Your task to perform on an android device: turn on airplane mode Image 0: 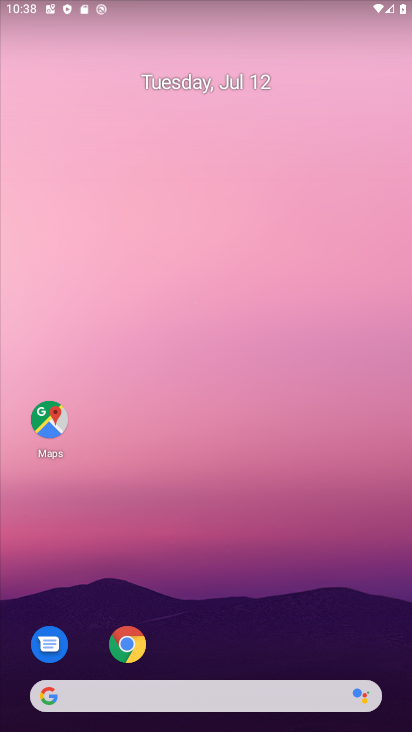
Step 0: drag from (322, 700) to (331, 37)
Your task to perform on an android device: turn on airplane mode Image 1: 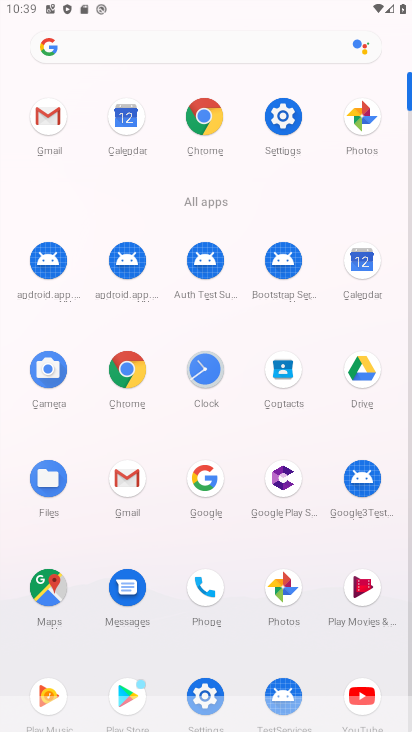
Step 1: click (289, 122)
Your task to perform on an android device: turn on airplane mode Image 2: 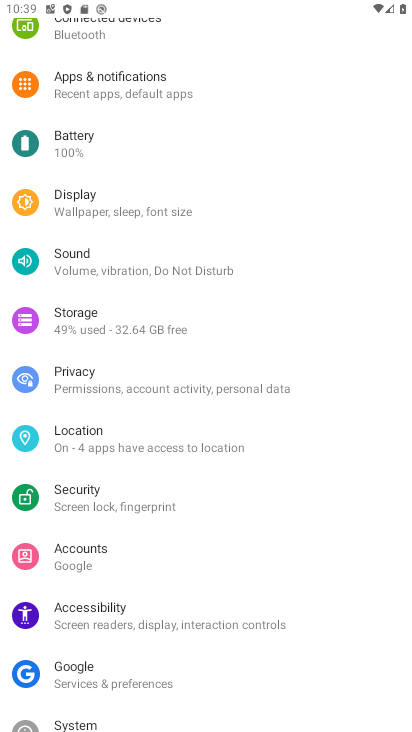
Step 2: drag from (329, 169) to (251, 598)
Your task to perform on an android device: turn on airplane mode Image 3: 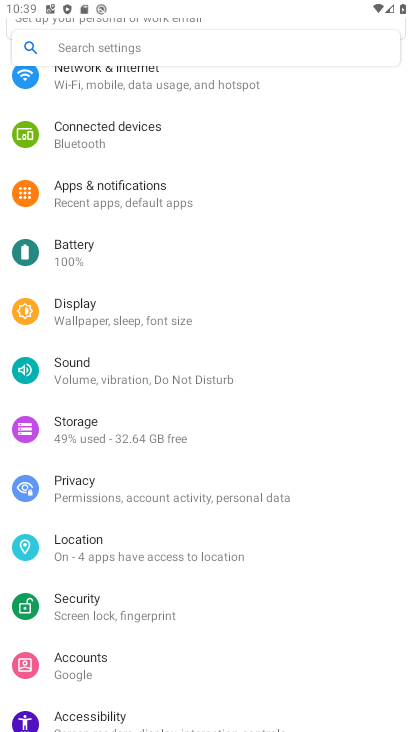
Step 3: click (219, 89)
Your task to perform on an android device: turn on airplane mode Image 4: 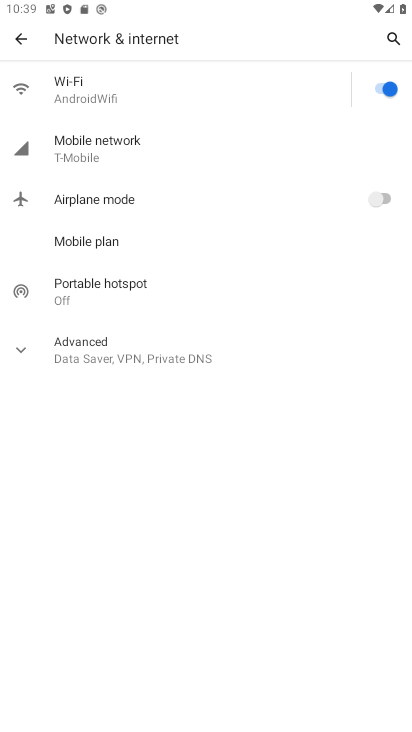
Step 4: click (388, 195)
Your task to perform on an android device: turn on airplane mode Image 5: 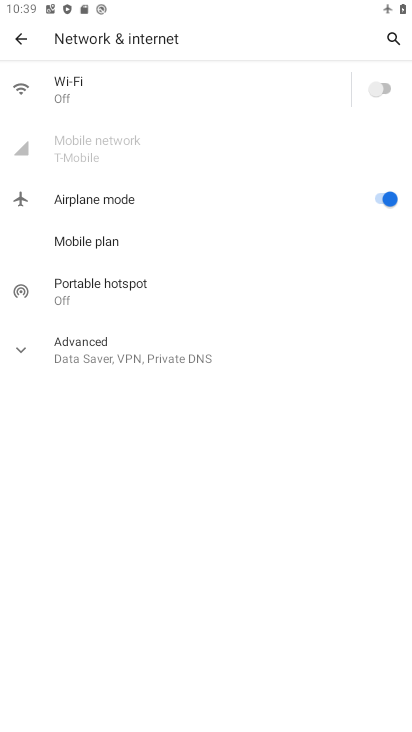
Step 5: task complete